Your task to perform on an android device: open app "Adobe Acrobat Reader" (install if not already installed) and enter user name: "nondescriptly@inbox.com" and password: "negating" Image 0: 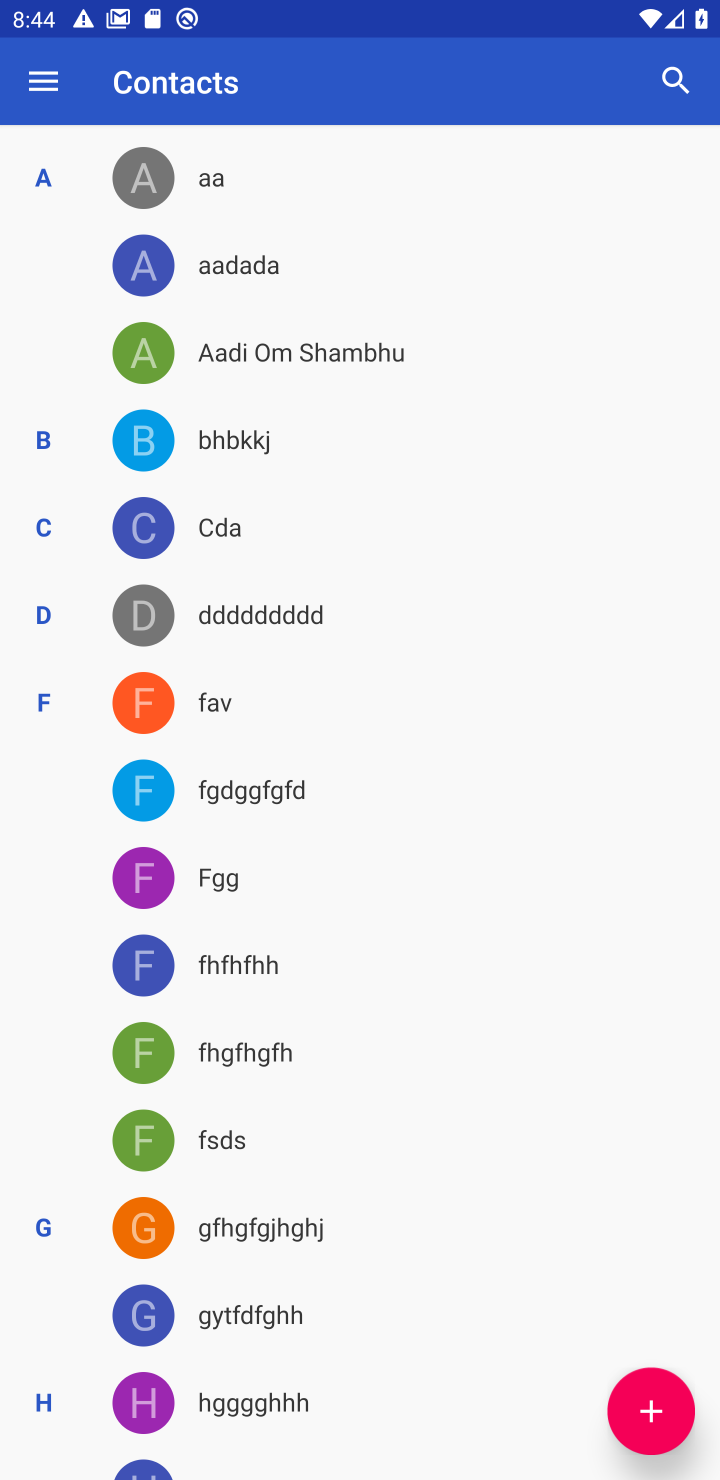
Step 0: press home button
Your task to perform on an android device: open app "Adobe Acrobat Reader" (install if not already installed) and enter user name: "nondescriptly@inbox.com" and password: "negating" Image 1: 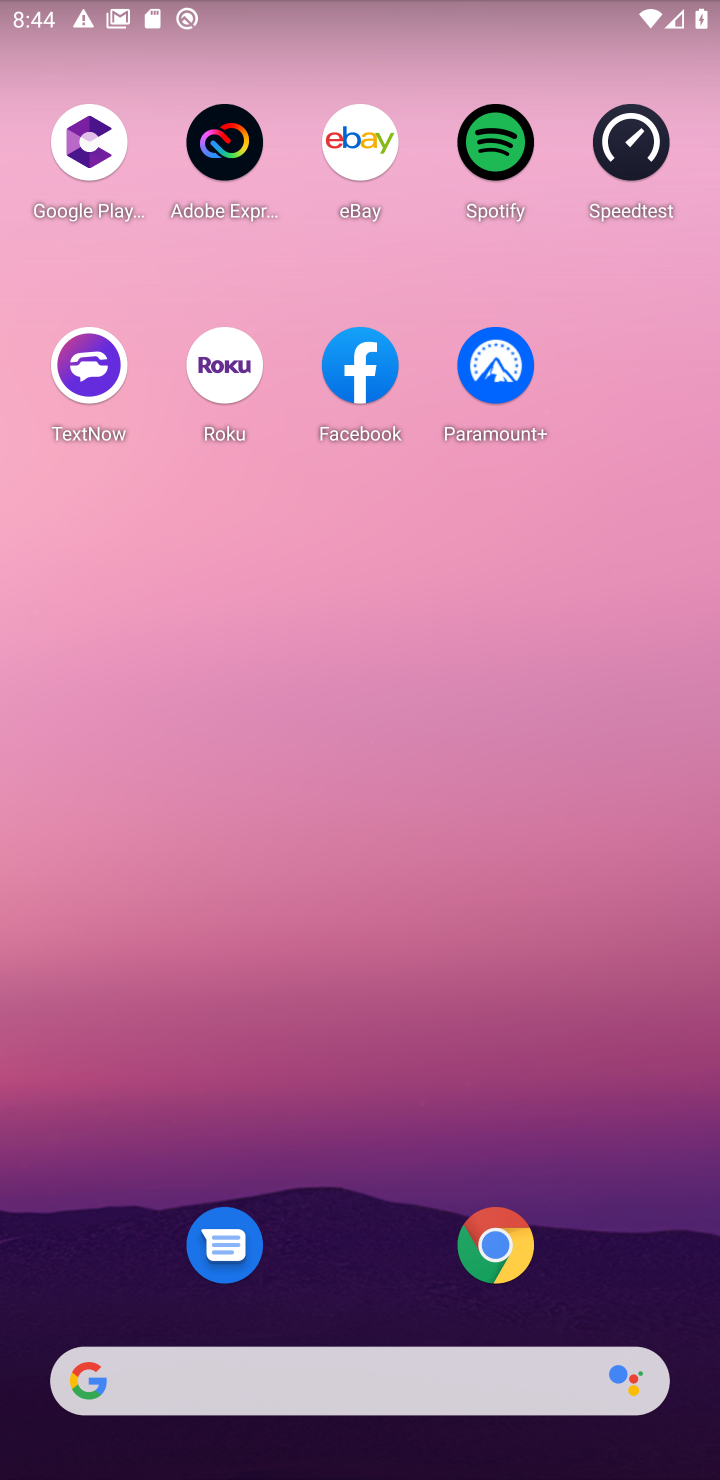
Step 1: drag from (351, 1295) to (375, 35)
Your task to perform on an android device: open app "Adobe Acrobat Reader" (install if not already installed) and enter user name: "nondescriptly@inbox.com" and password: "negating" Image 2: 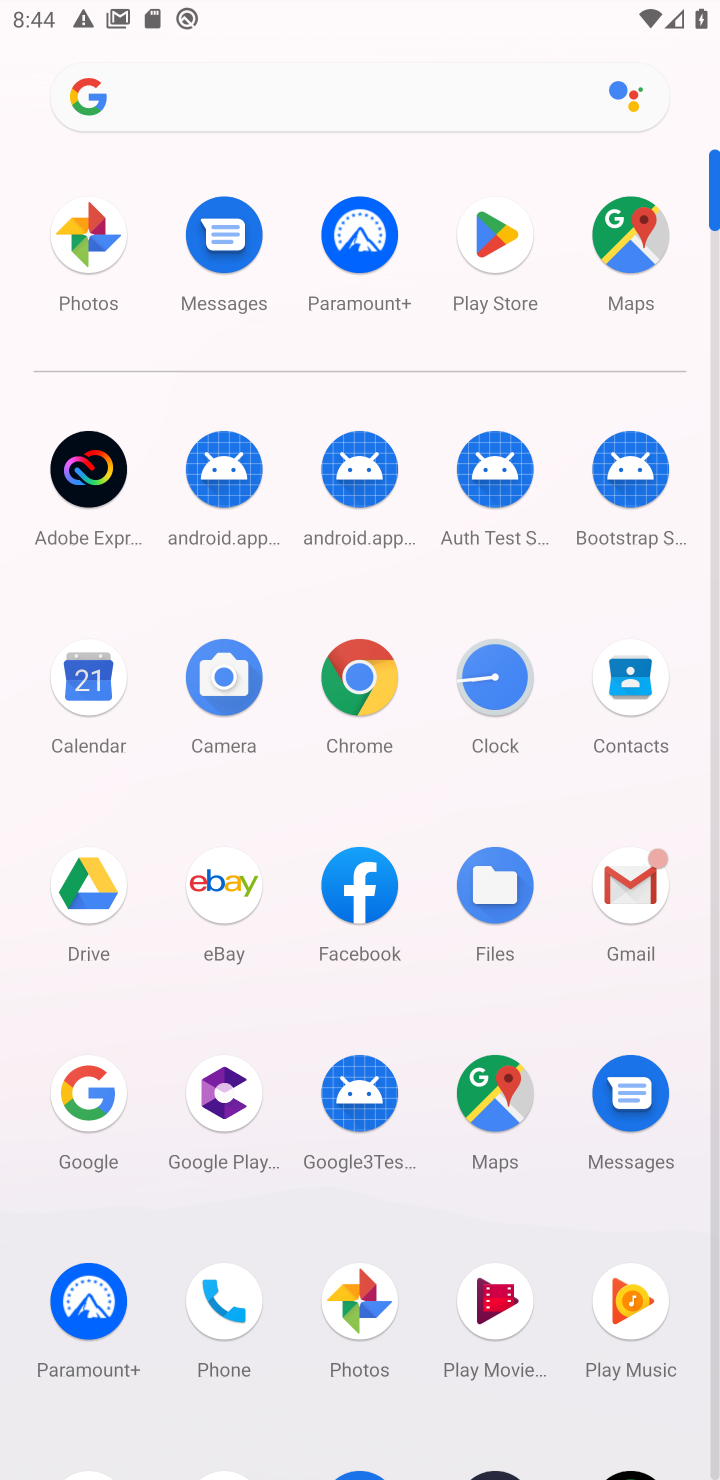
Step 2: drag from (282, 1211) to (593, 302)
Your task to perform on an android device: open app "Adobe Acrobat Reader" (install if not already installed) and enter user name: "nondescriptly@inbox.com" and password: "negating" Image 3: 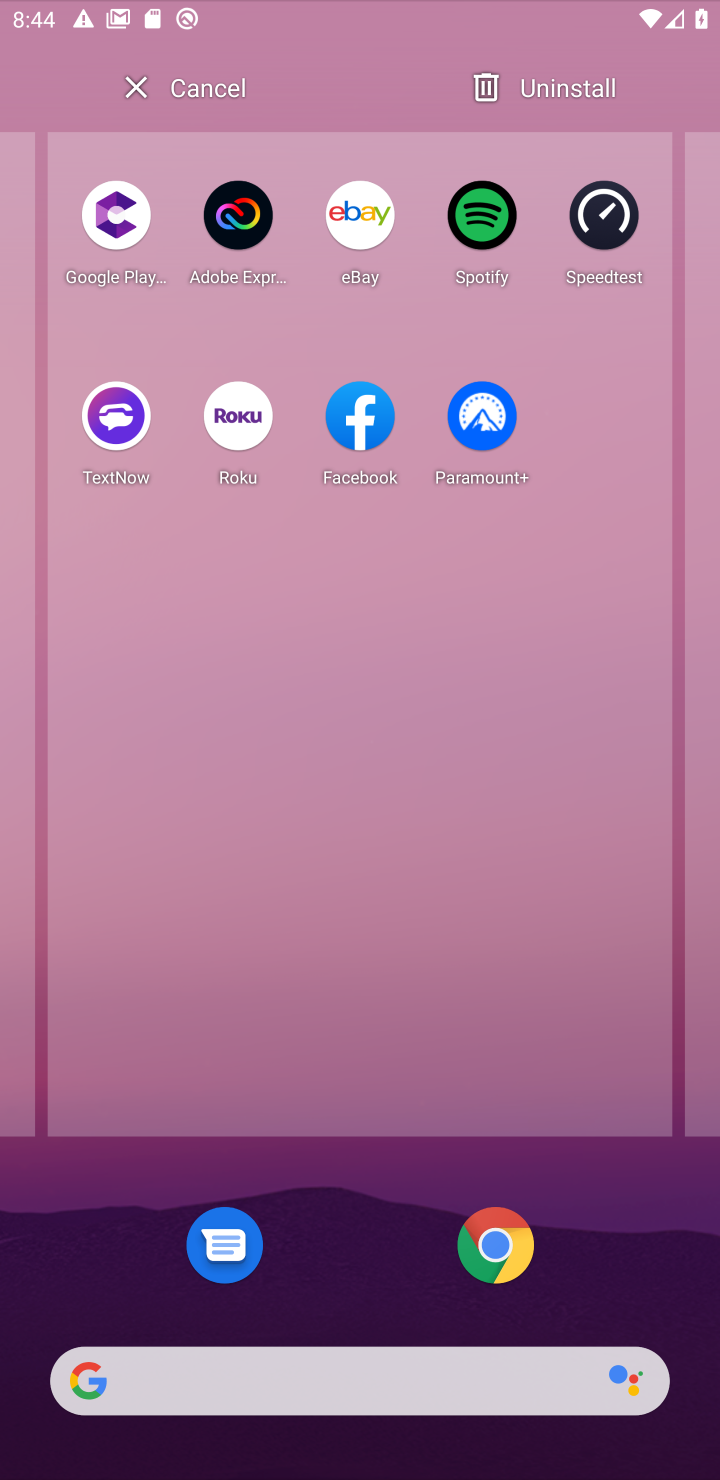
Step 3: click (404, 782)
Your task to perform on an android device: open app "Adobe Acrobat Reader" (install if not already installed) and enter user name: "nondescriptly@inbox.com" and password: "negating" Image 4: 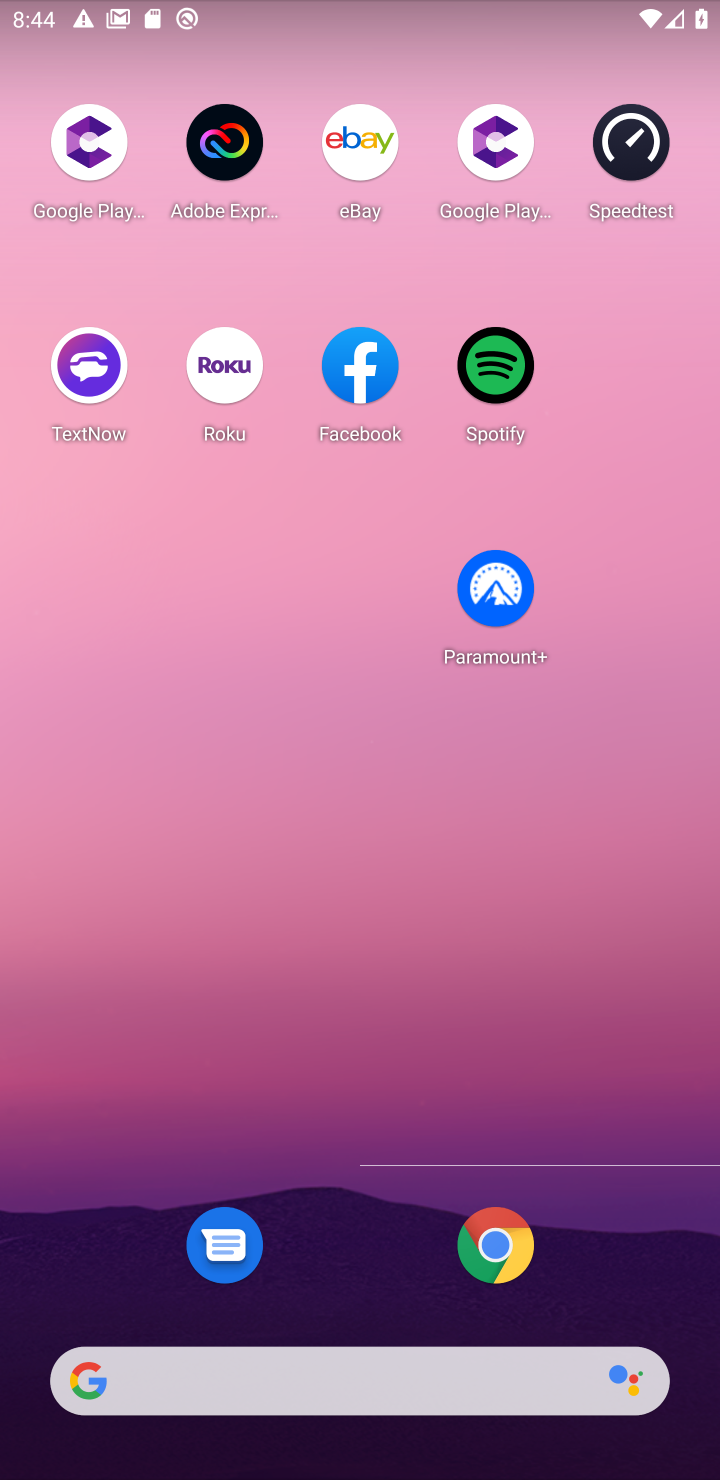
Step 4: drag from (287, 1296) to (155, 20)
Your task to perform on an android device: open app "Adobe Acrobat Reader" (install if not already installed) and enter user name: "nondescriptly@inbox.com" and password: "negating" Image 5: 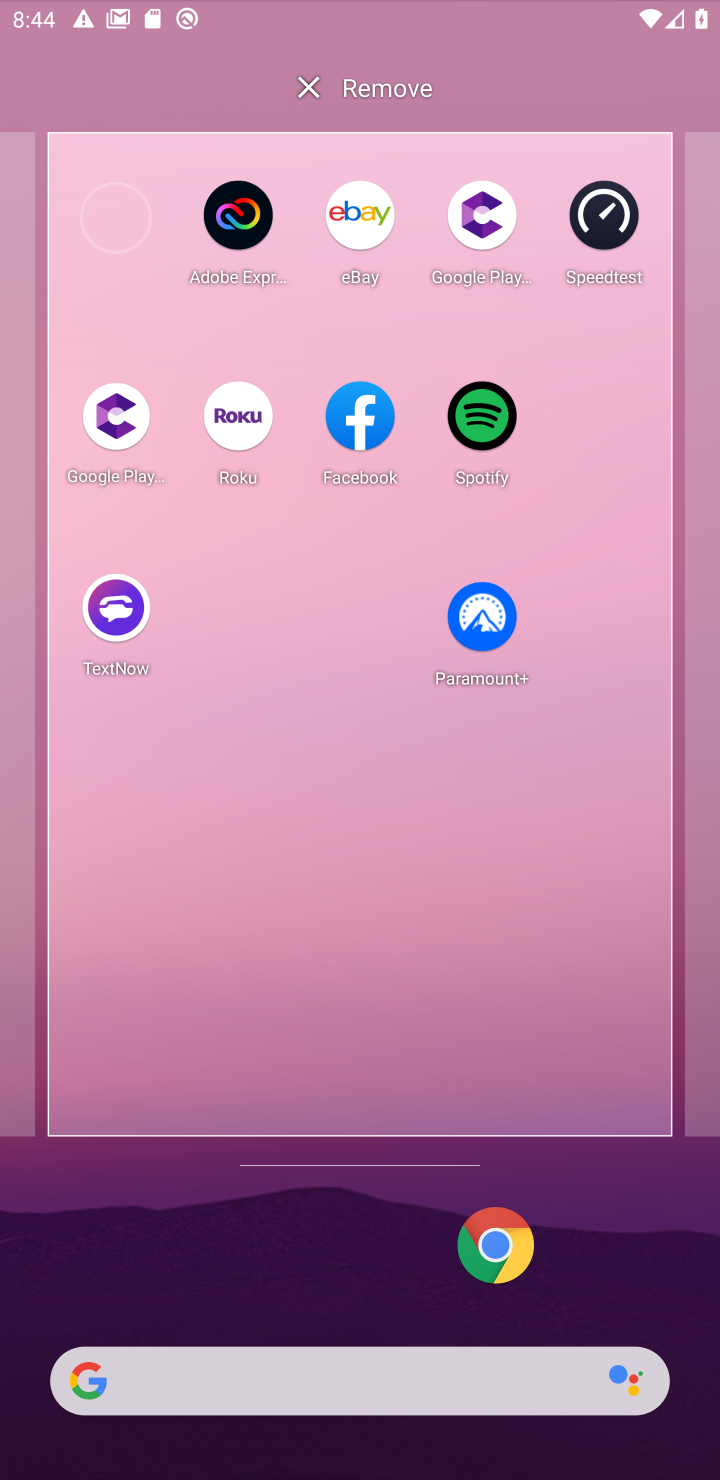
Step 5: click (207, 888)
Your task to perform on an android device: open app "Adobe Acrobat Reader" (install if not already installed) and enter user name: "nondescriptly@inbox.com" and password: "negating" Image 6: 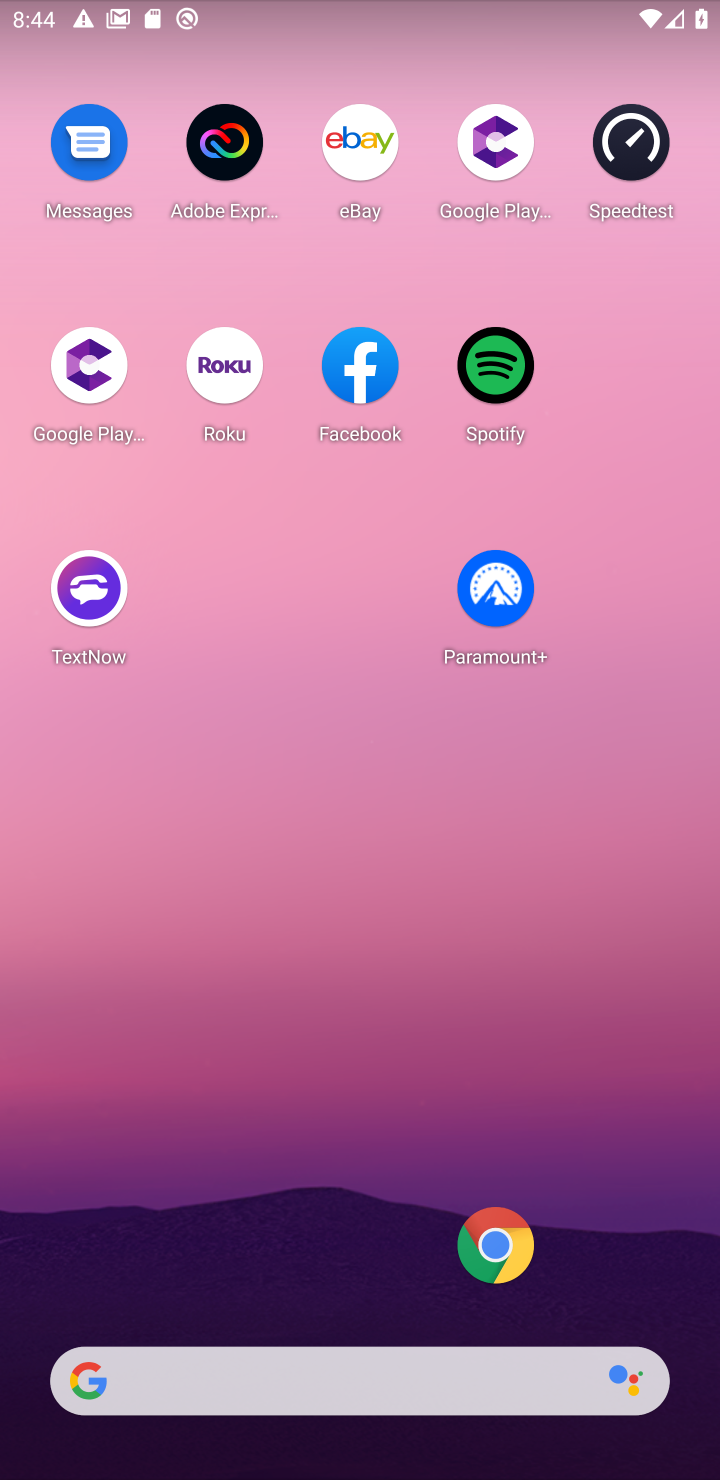
Step 6: click (337, 957)
Your task to perform on an android device: open app "Adobe Acrobat Reader" (install if not already installed) and enter user name: "nondescriptly@inbox.com" and password: "negating" Image 7: 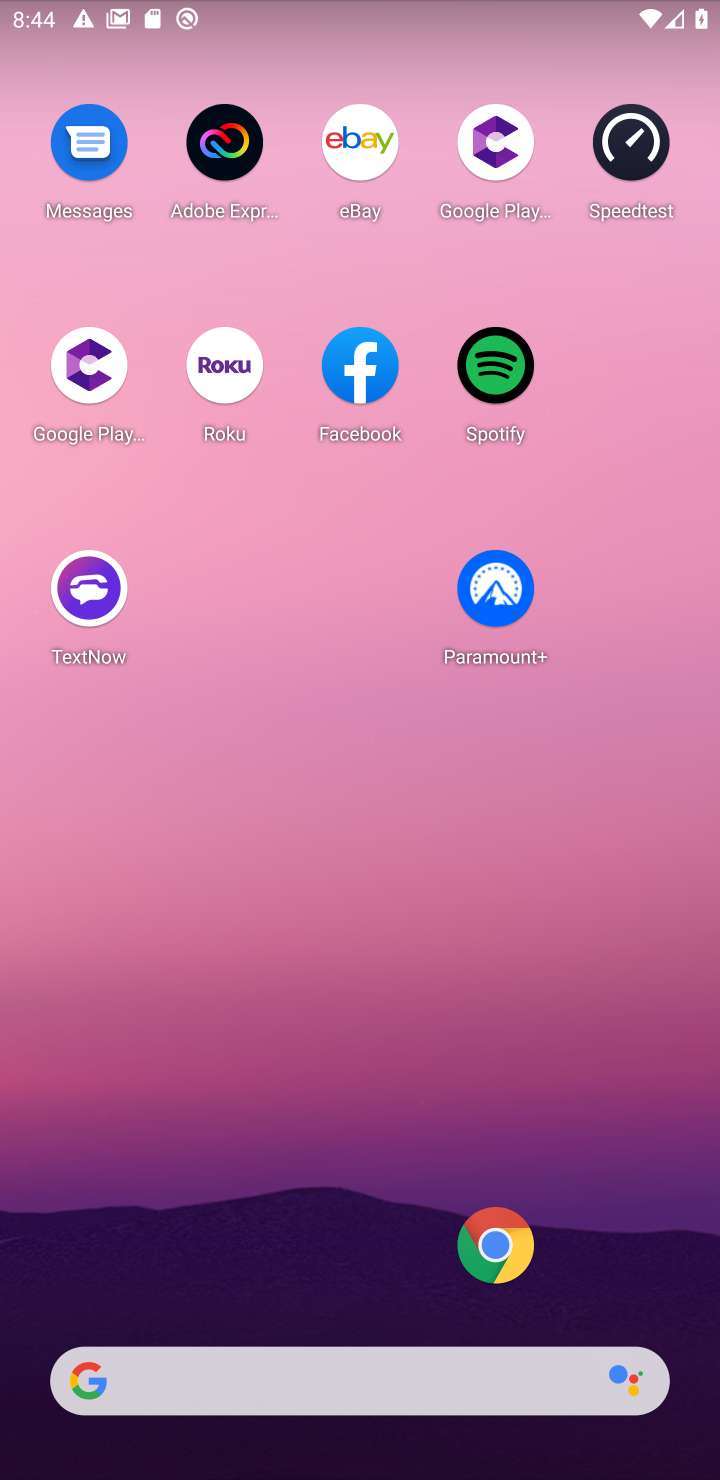
Step 7: drag from (347, 1340) to (574, 17)
Your task to perform on an android device: open app "Adobe Acrobat Reader" (install if not already installed) and enter user name: "nondescriptly@inbox.com" and password: "negating" Image 8: 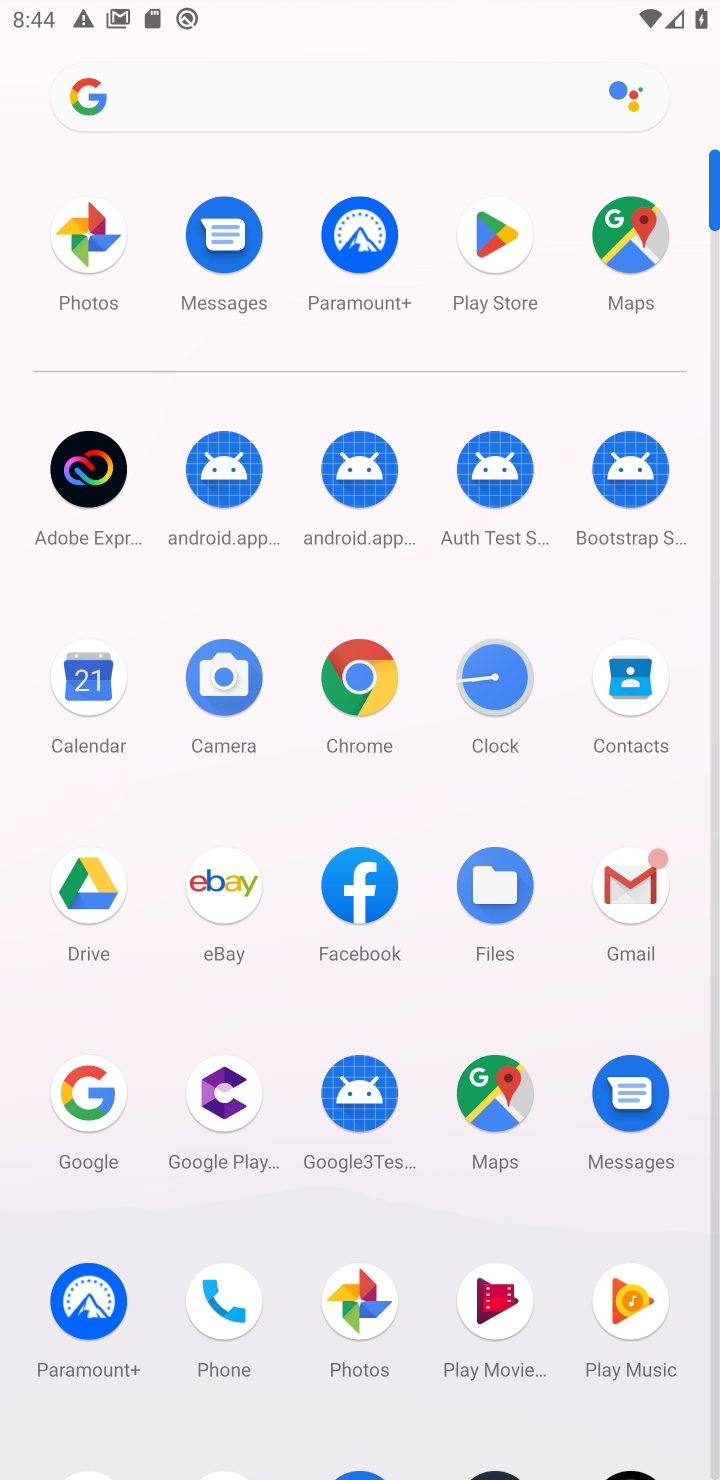
Step 8: click (504, 253)
Your task to perform on an android device: open app "Adobe Acrobat Reader" (install if not already installed) and enter user name: "nondescriptly@inbox.com" and password: "negating" Image 9: 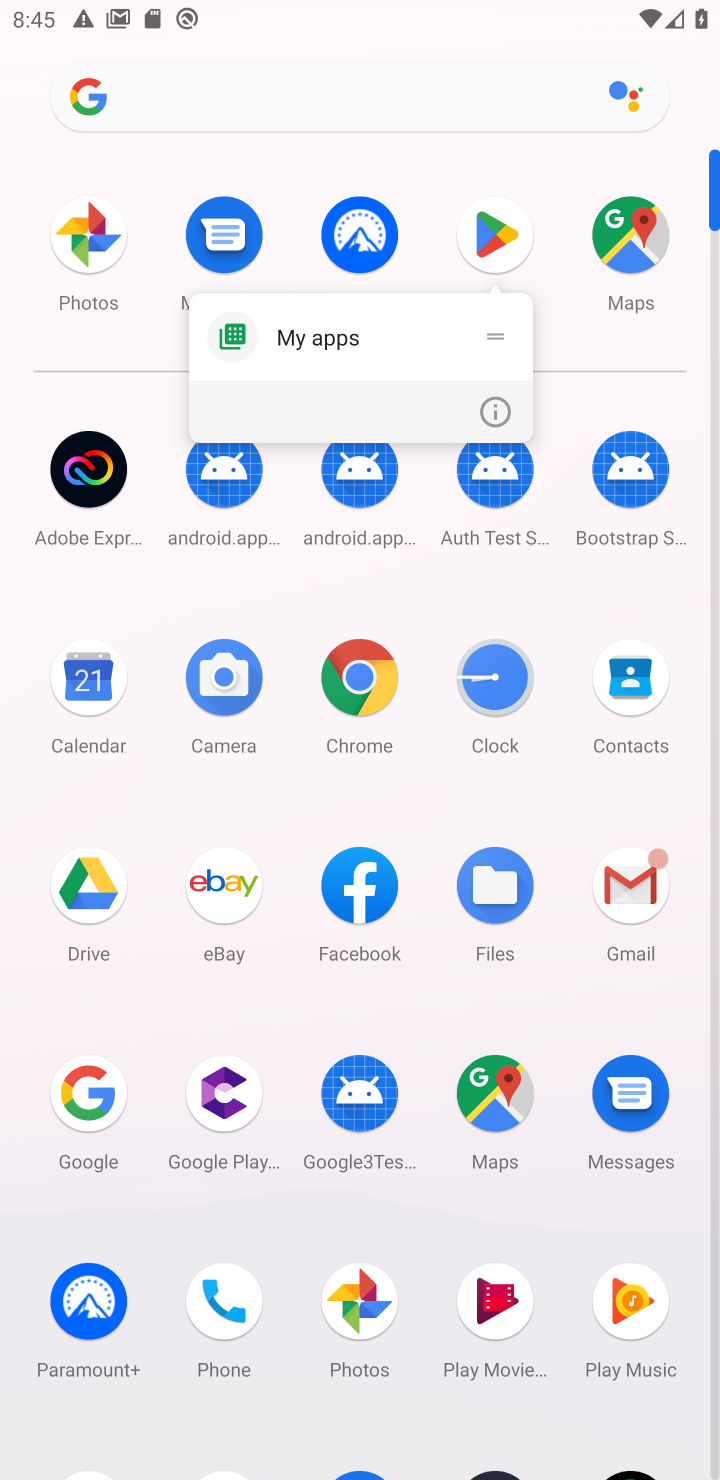
Step 9: click (494, 223)
Your task to perform on an android device: open app "Adobe Acrobat Reader" (install if not already installed) and enter user name: "nondescriptly@inbox.com" and password: "negating" Image 10: 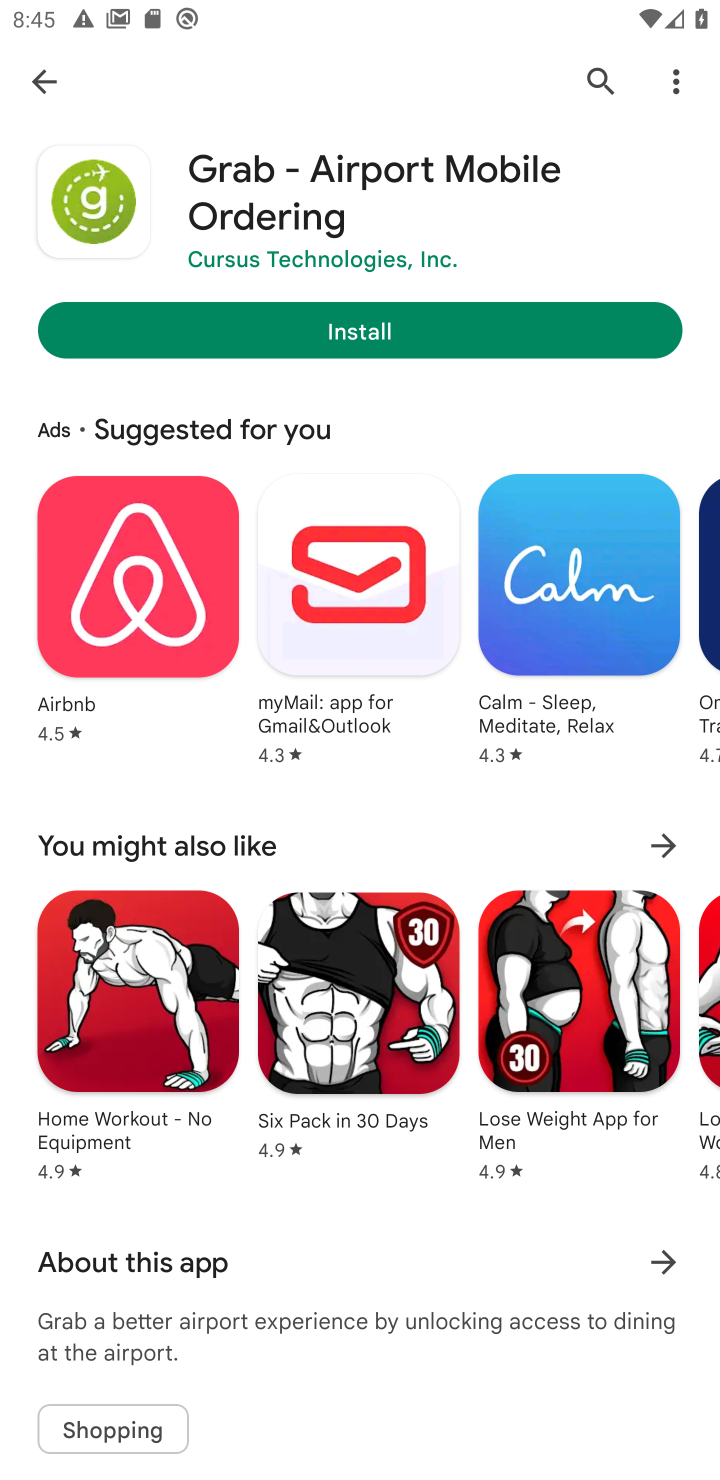
Step 10: click (39, 78)
Your task to perform on an android device: open app "Adobe Acrobat Reader" (install if not already installed) and enter user name: "nondescriptly@inbox.com" and password: "negating" Image 11: 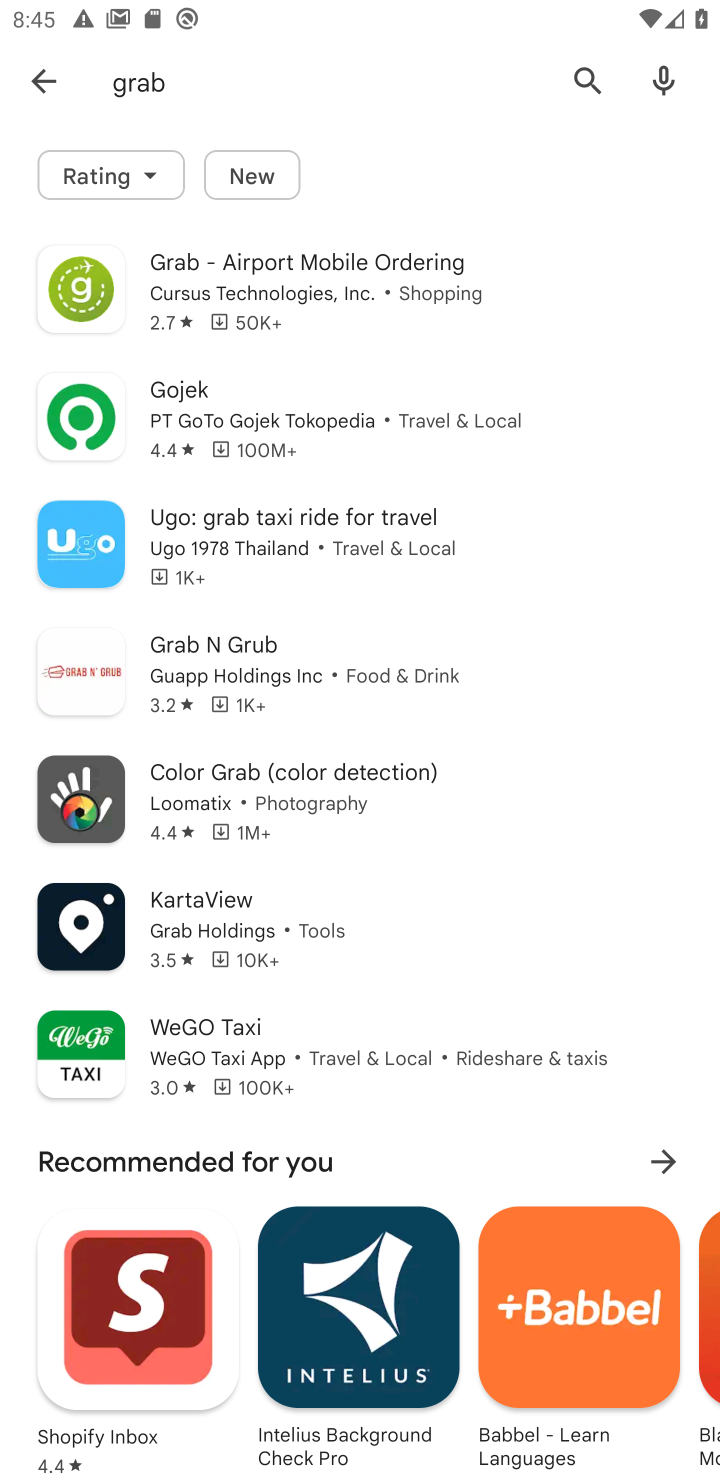
Step 11: click (42, 93)
Your task to perform on an android device: open app "Adobe Acrobat Reader" (install if not already installed) and enter user name: "nondescriptly@inbox.com" and password: "negating" Image 12: 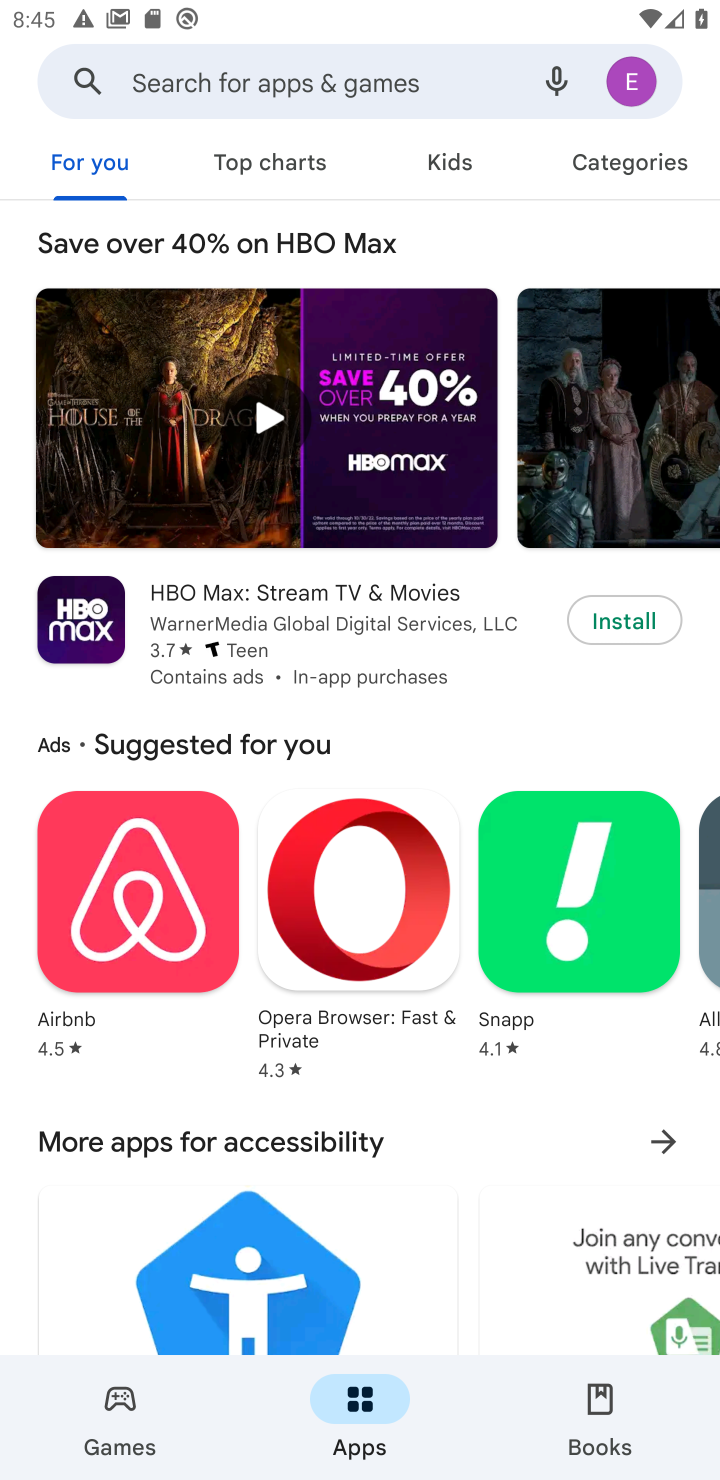
Step 12: click (314, 58)
Your task to perform on an android device: open app "Adobe Acrobat Reader" (install if not already installed) and enter user name: "nondescriptly@inbox.com" and password: "negating" Image 13: 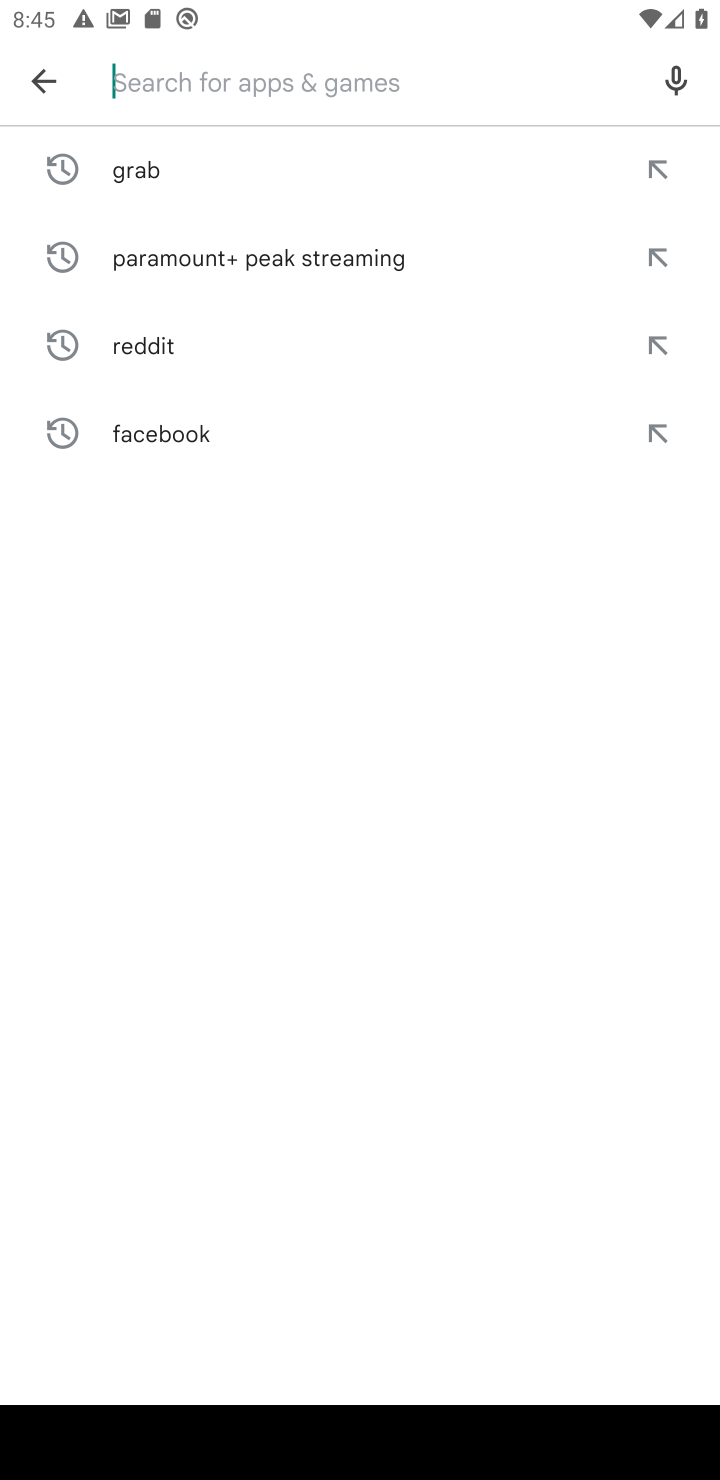
Step 13: type "Adobe Acrobat Reader"
Your task to perform on an android device: open app "Adobe Acrobat Reader" (install if not already installed) and enter user name: "nondescriptly@inbox.com" and password: "negating" Image 14: 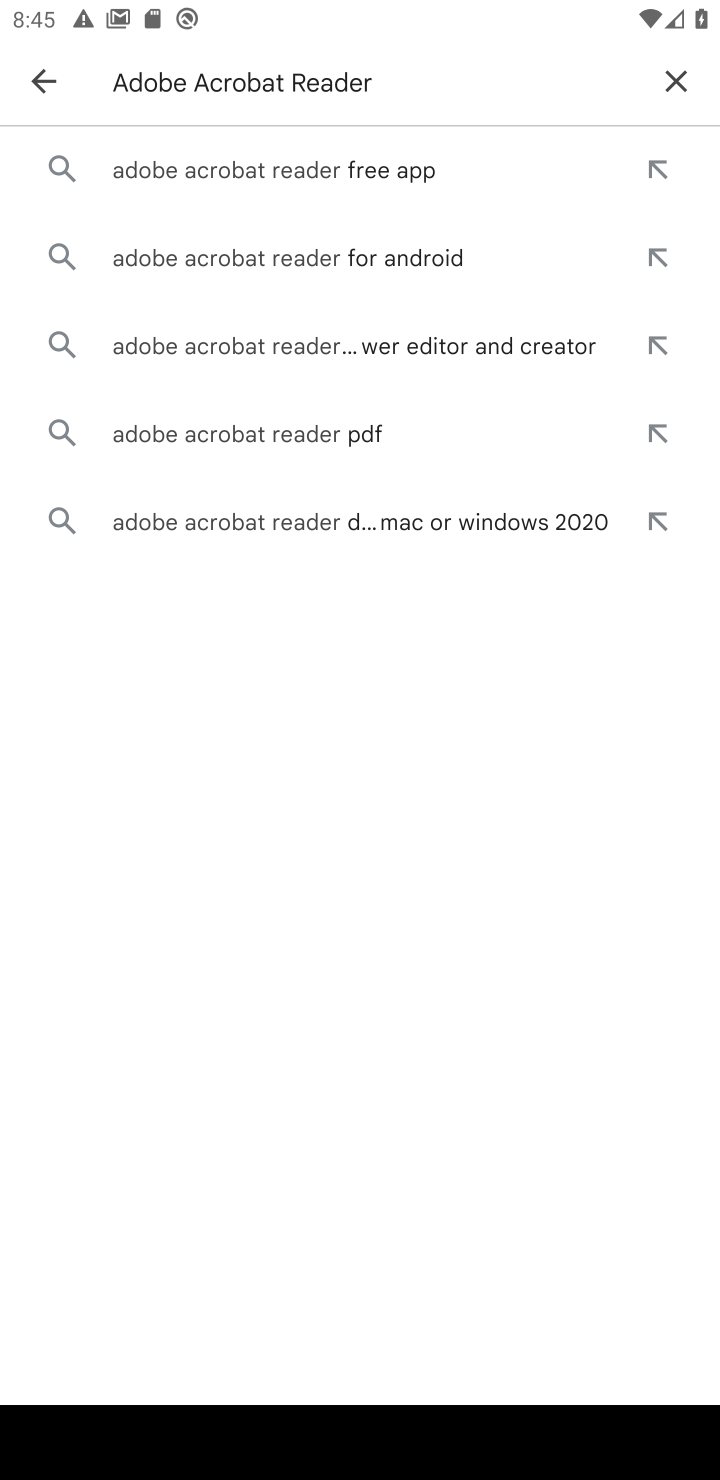
Step 14: click (200, 178)
Your task to perform on an android device: open app "Adobe Acrobat Reader" (install if not already installed) and enter user name: "nondescriptly@inbox.com" and password: "negating" Image 15: 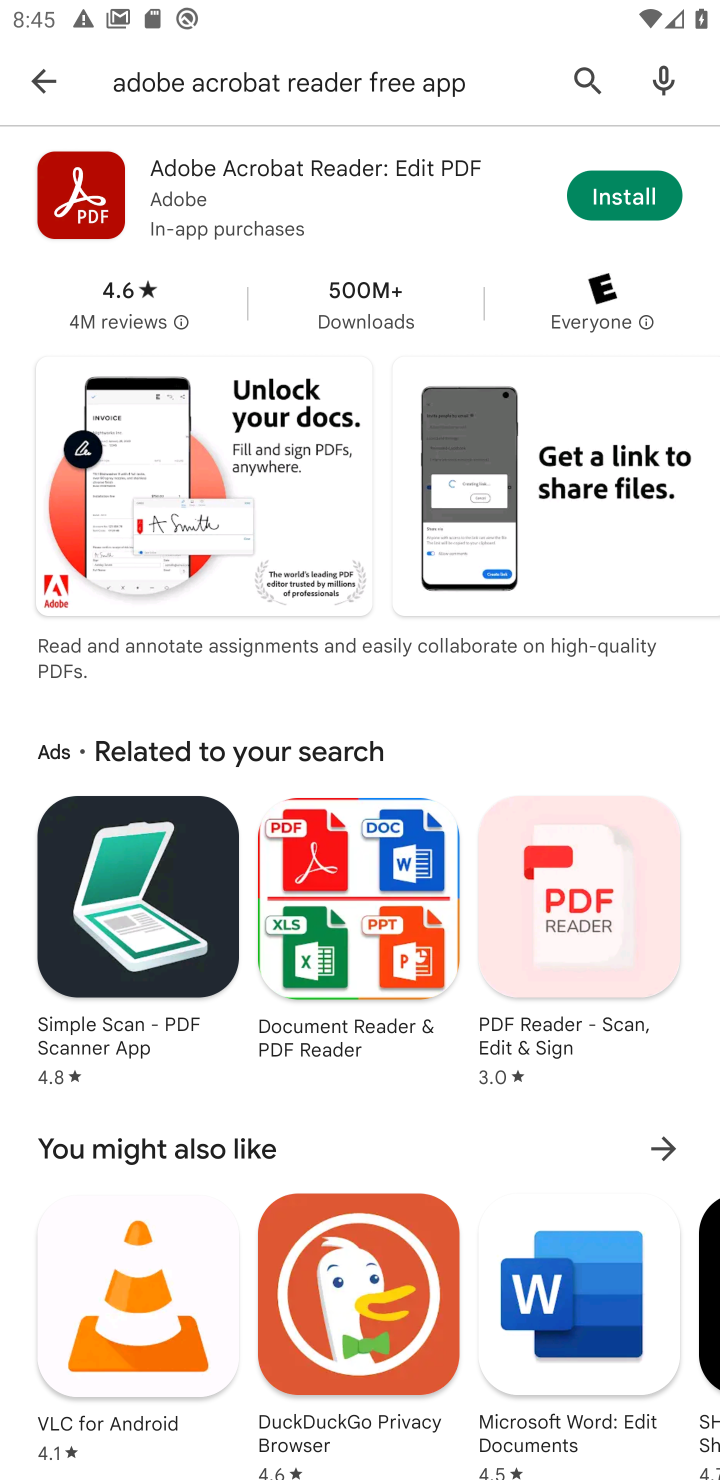
Step 15: click (633, 207)
Your task to perform on an android device: open app "Adobe Acrobat Reader" (install if not already installed) and enter user name: "nondescriptly@inbox.com" and password: "negating" Image 16: 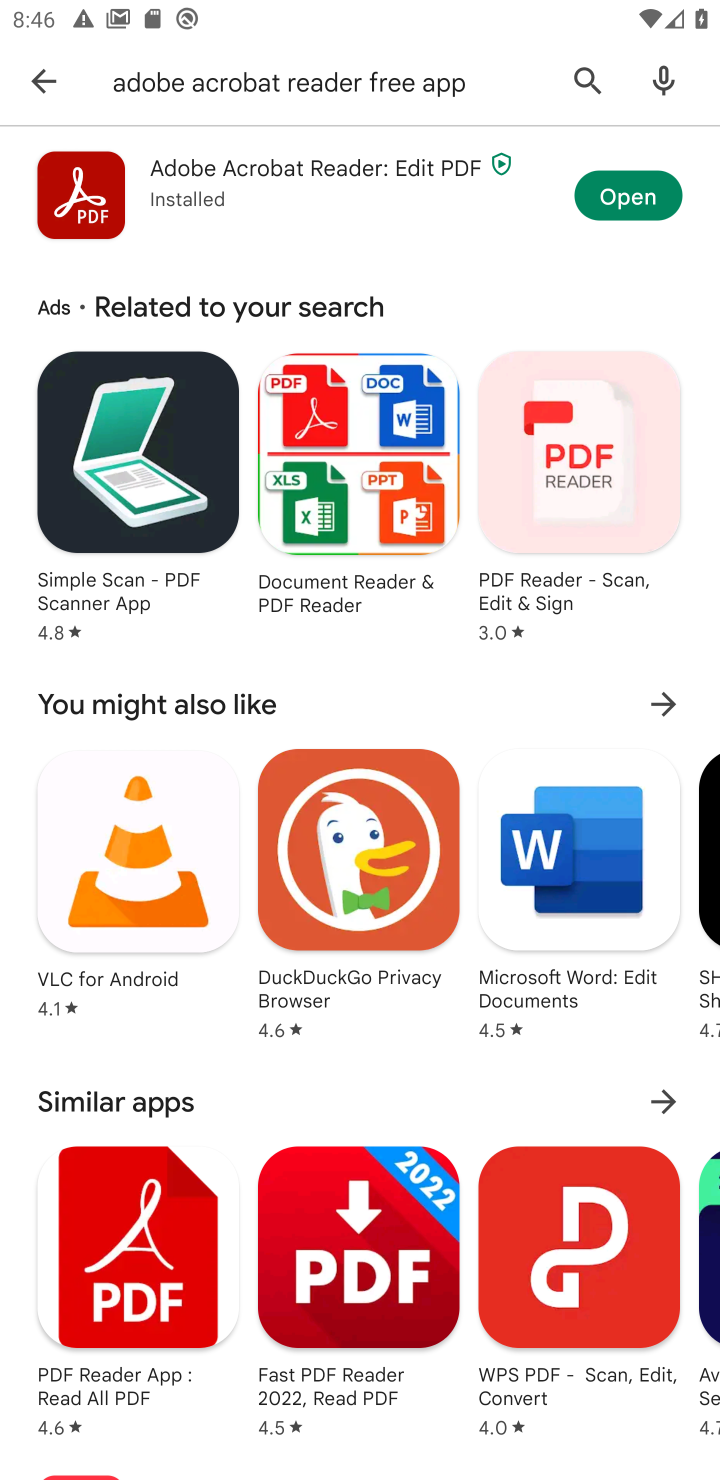
Step 16: click (579, 224)
Your task to perform on an android device: open app "Adobe Acrobat Reader" (install if not already installed) and enter user name: "nondescriptly@inbox.com" and password: "negating" Image 17: 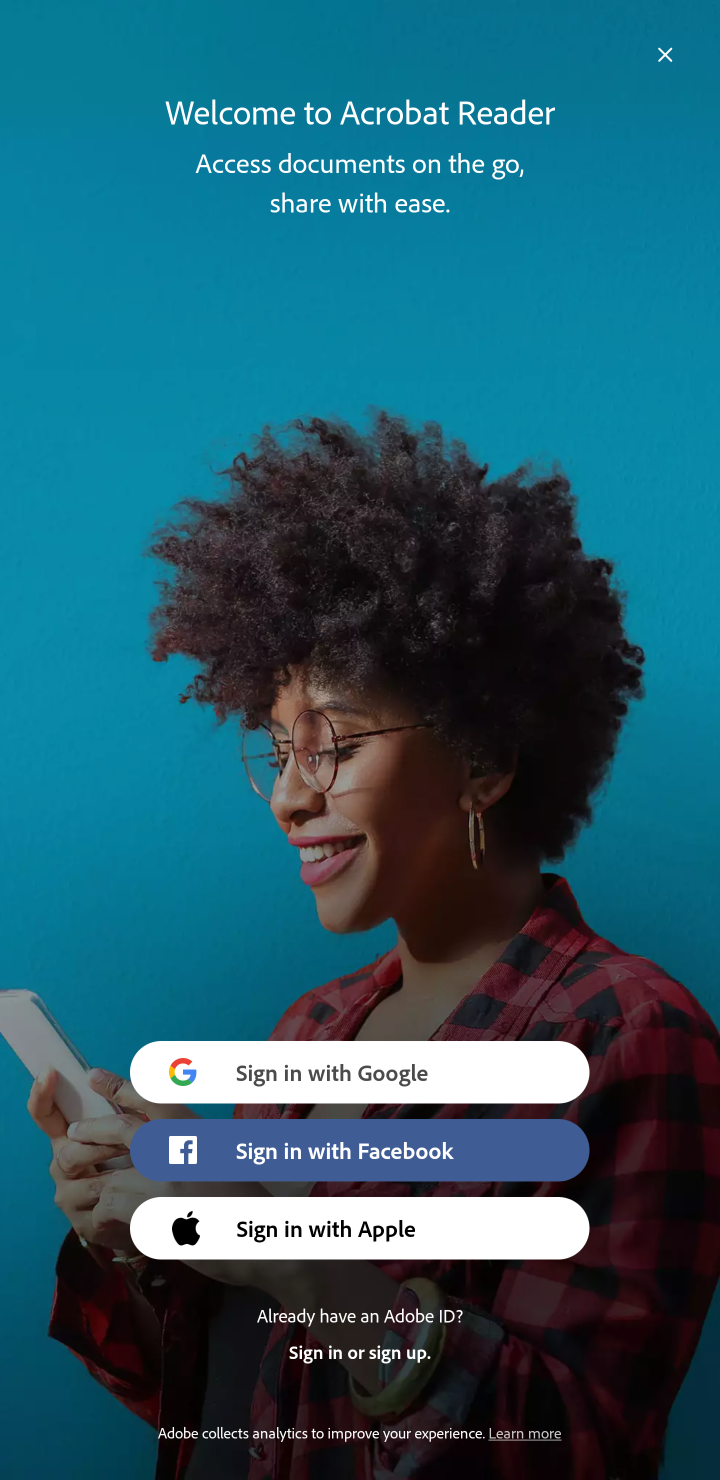
Step 17: click (322, 1350)
Your task to perform on an android device: open app "Adobe Acrobat Reader" (install if not already installed) and enter user name: "nondescriptly@inbox.com" and password: "negating" Image 18: 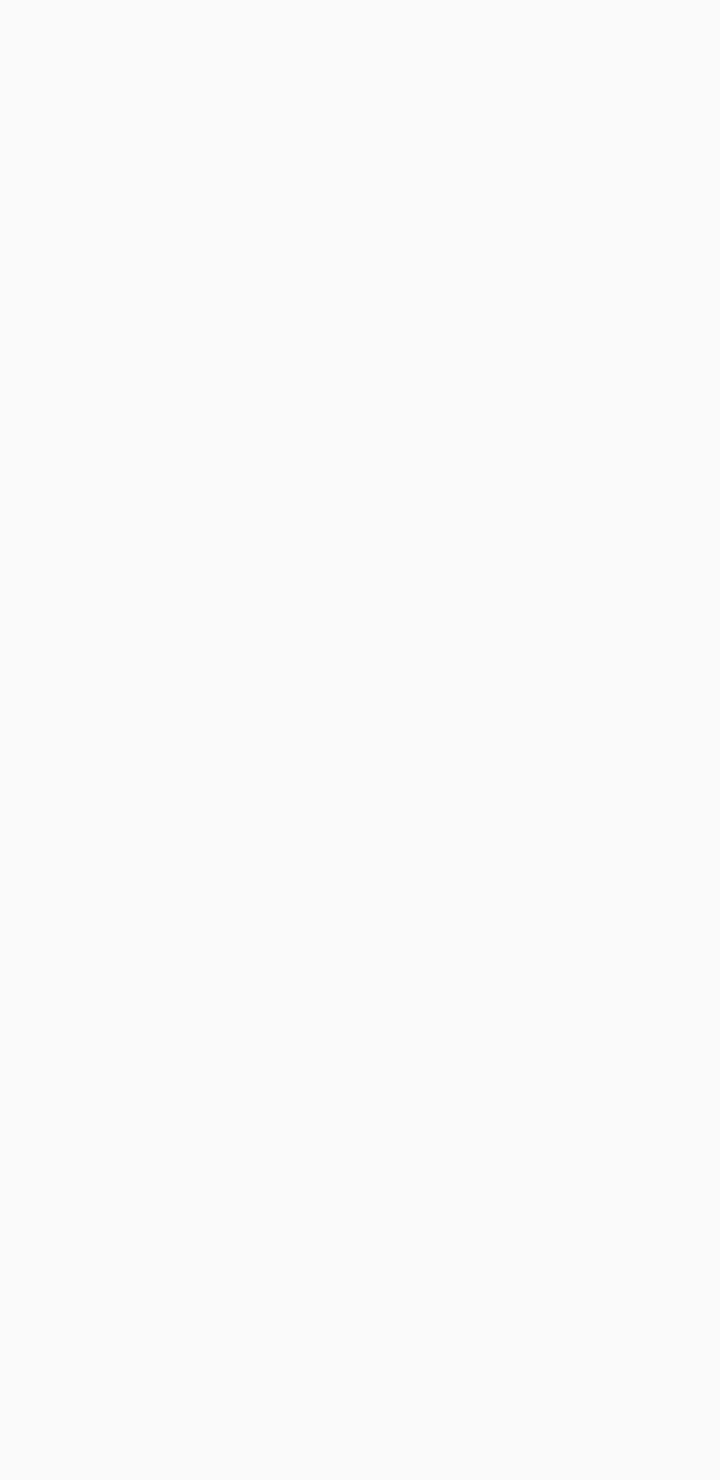
Step 18: click (281, 1351)
Your task to perform on an android device: open app "Adobe Acrobat Reader" (install if not already installed) and enter user name: "nondescriptly@inbox.com" and password: "negating" Image 19: 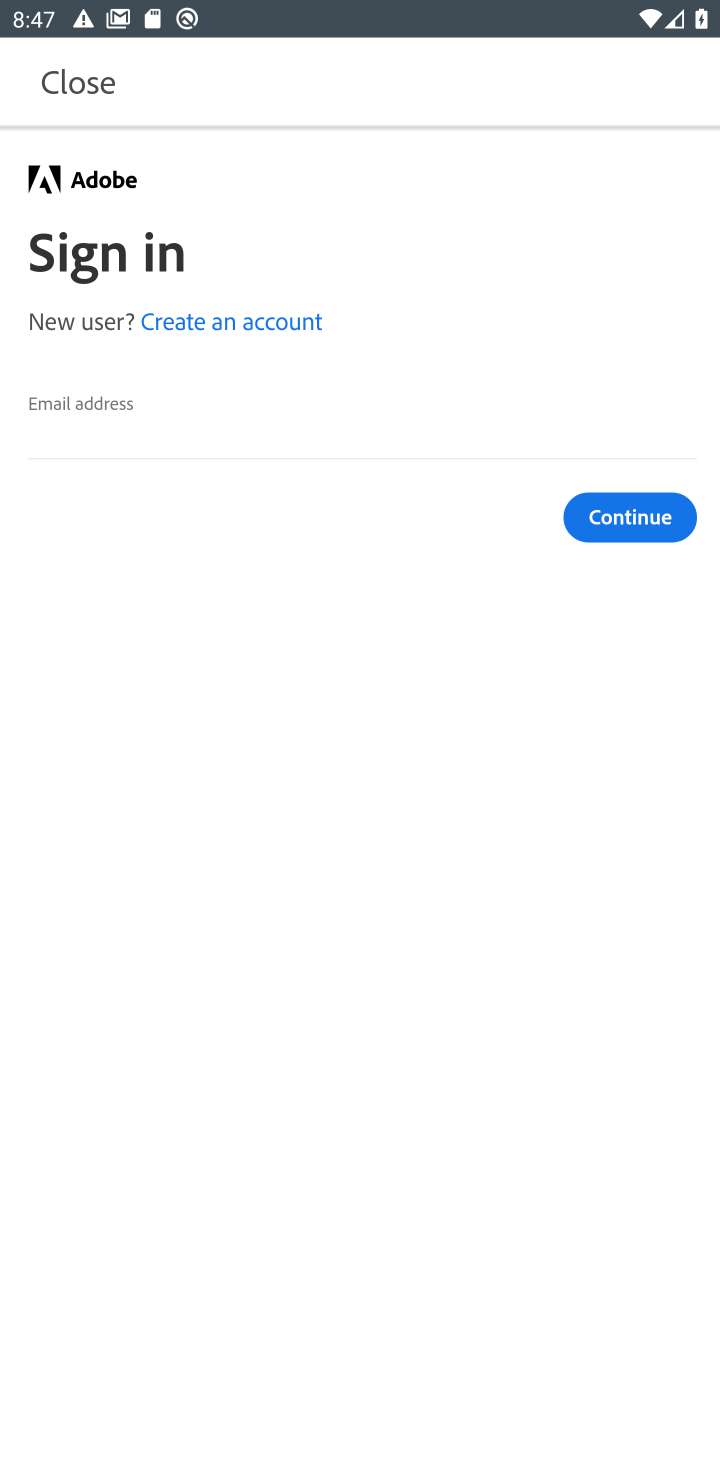
Step 19: click (80, 388)
Your task to perform on an android device: open app "Adobe Acrobat Reader" (install if not already installed) and enter user name: "nondescriptly@inbox.com" and password: "negating" Image 20: 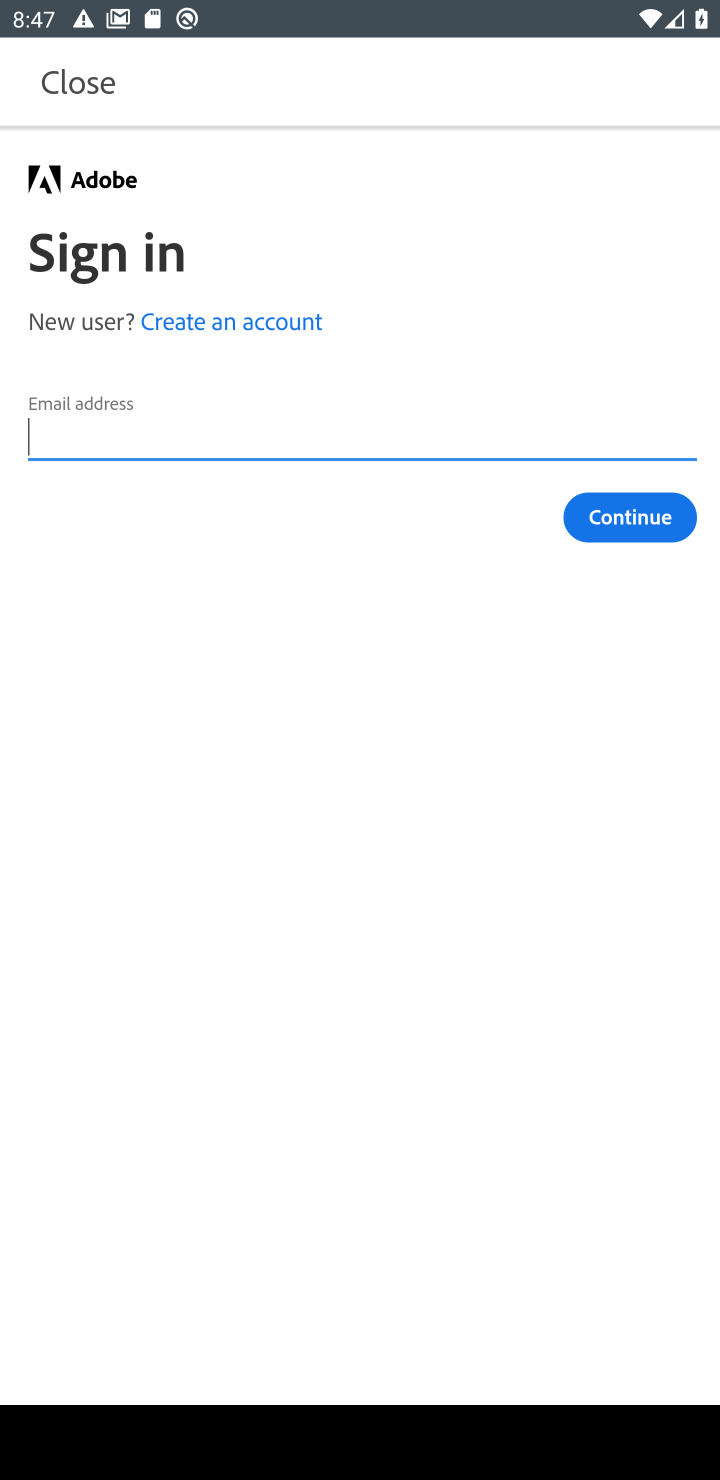
Step 20: type "nondescriptly@inbox.com"
Your task to perform on an android device: open app "Adobe Acrobat Reader" (install if not already installed) and enter user name: "nondescriptly@inbox.com" and password: "negating" Image 21: 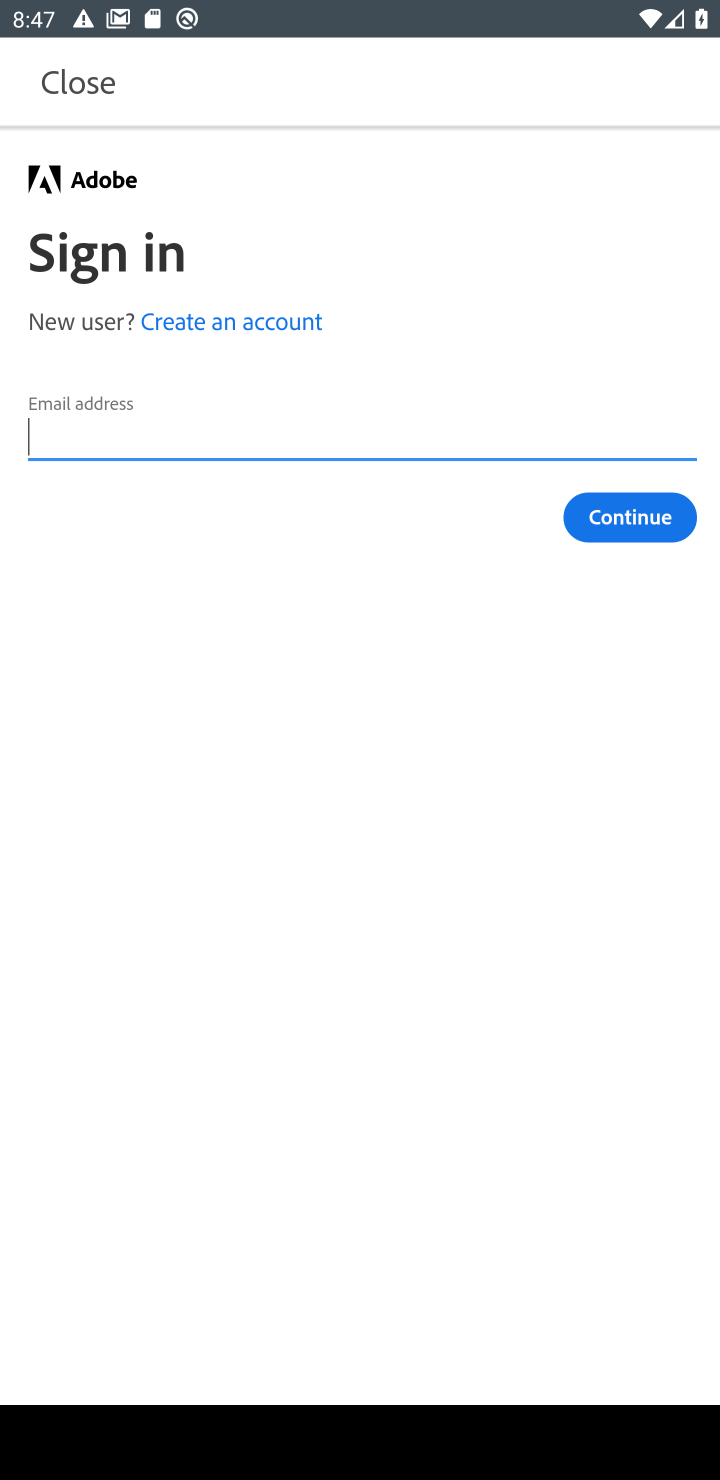
Step 21: type ""
Your task to perform on an android device: open app "Adobe Acrobat Reader" (install if not already installed) and enter user name: "nondescriptly@inbox.com" and password: "negating" Image 22: 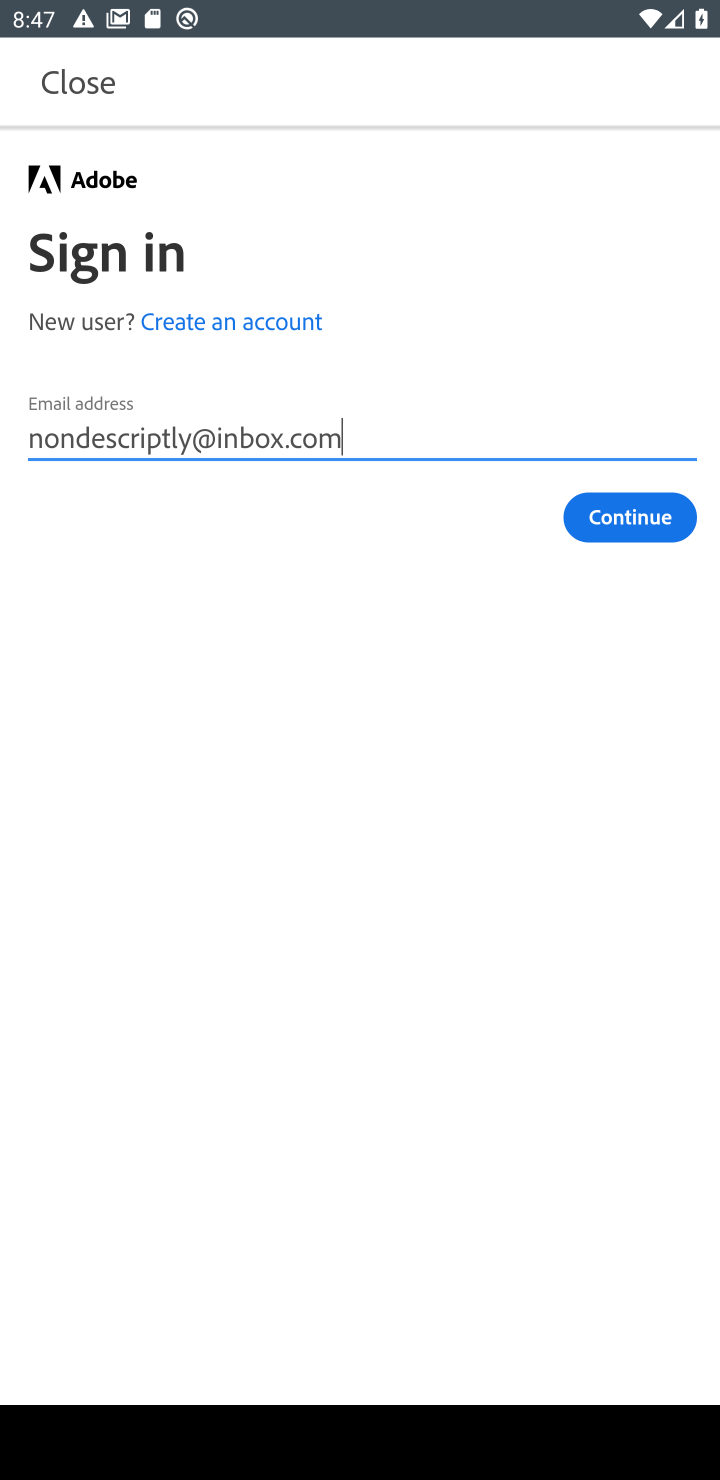
Step 22: click (604, 520)
Your task to perform on an android device: open app "Adobe Acrobat Reader" (install if not already installed) and enter user name: "nondescriptly@inbox.com" and password: "negating" Image 23: 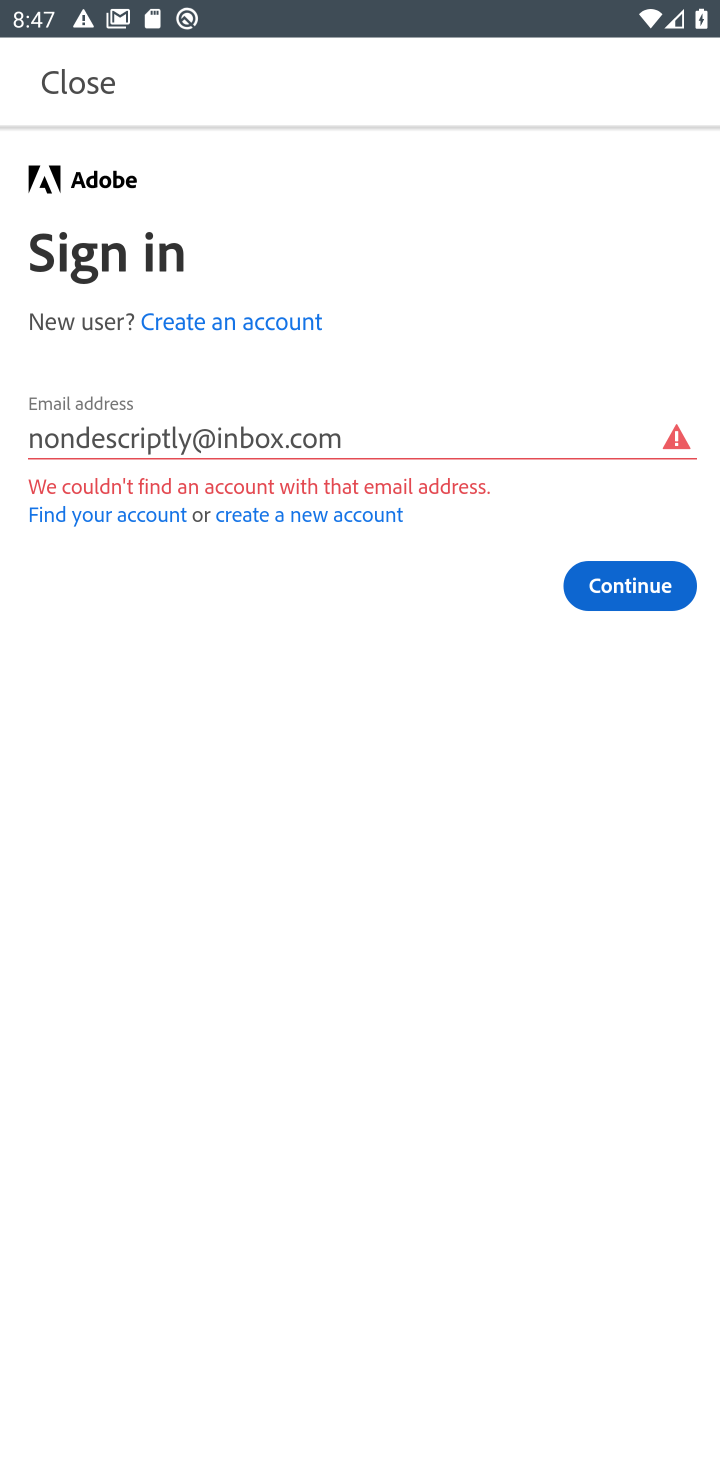
Step 23: task complete